Your task to perform on an android device: clear history in the chrome app Image 0: 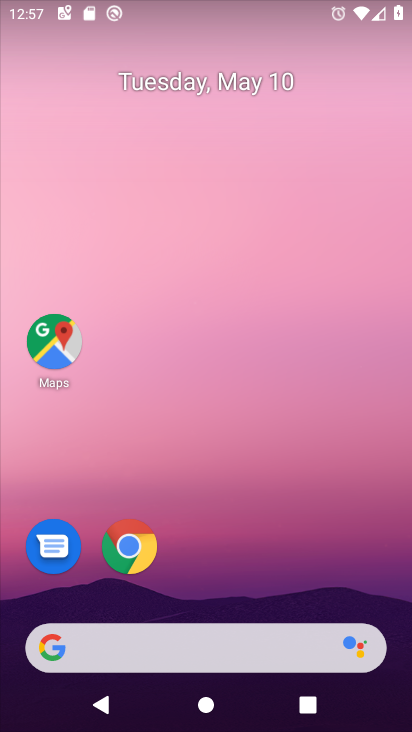
Step 0: click (138, 537)
Your task to perform on an android device: clear history in the chrome app Image 1: 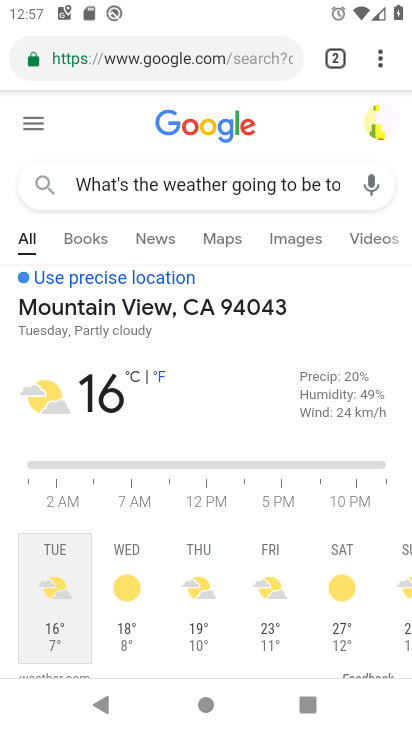
Step 1: drag from (378, 63) to (208, 585)
Your task to perform on an android device: clear history in the chrome app Image 2: 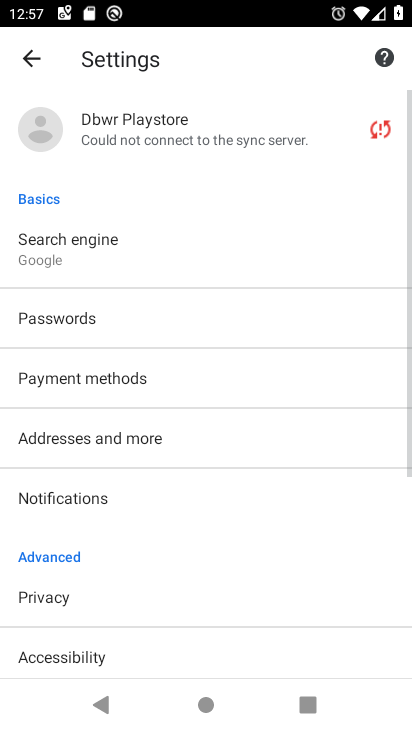
Step 2: drag from (149, 636) to (186, 181)
Your task to perform on an android device: clear history in the chrome app Image 3: 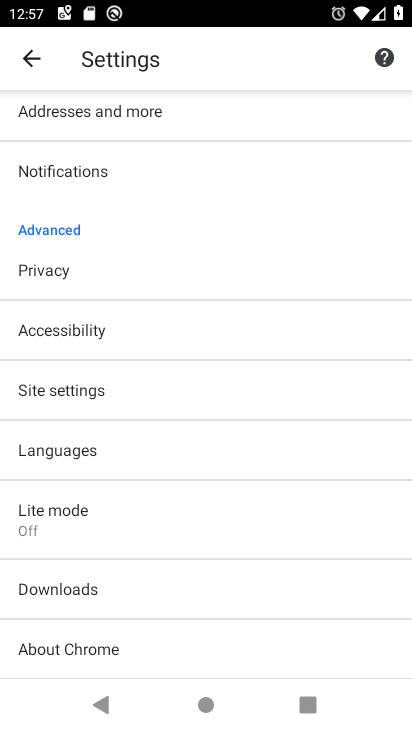
Step 3: click (48, 60)
Your task to perform on an android device: clear history in the chrome app Image 4: 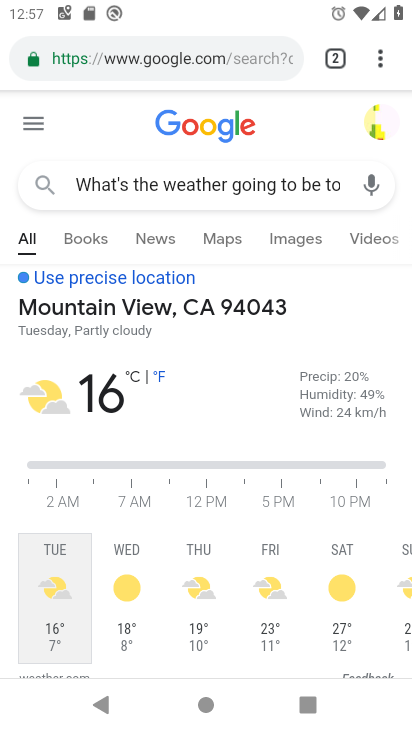
Step 4: drag from (368, 64) to (237, 320)
Your task to perform on an android device: clear history in the chrome app Image 5: 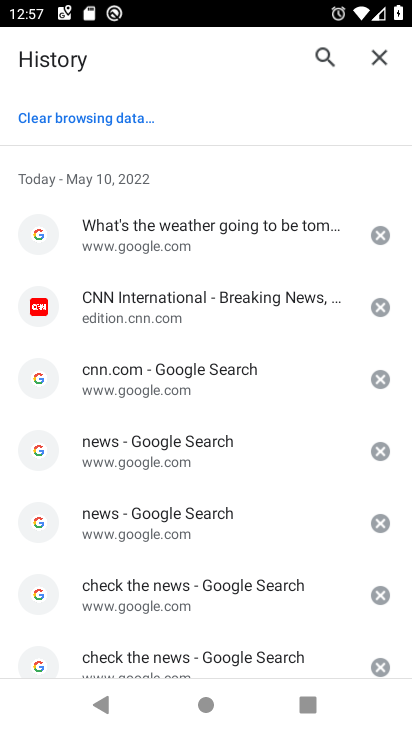
Step 5: click (91, 105)
Your task to perform on an android device: clear history in the chrome app Image 6: 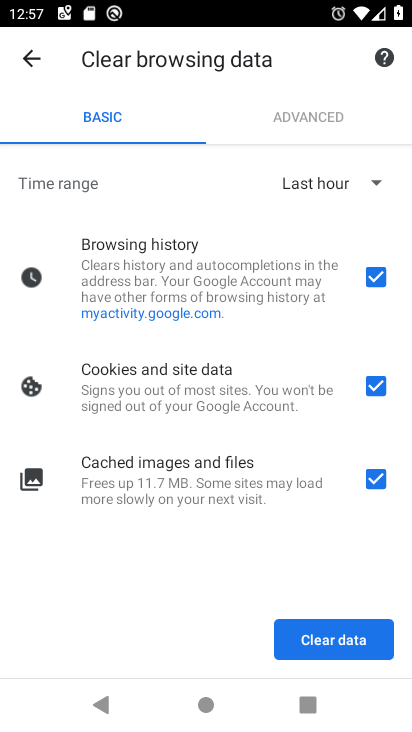
Step 6: click (289, 635)
Your task to perform on an android device: clear history in the chrome app Image 7: 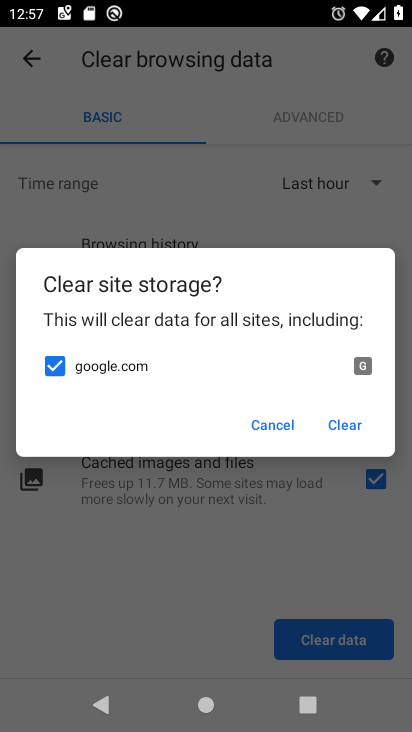
Step 7: click (341, 428)
Your task to perform on an android device: clear history in the chrome app Image 8: 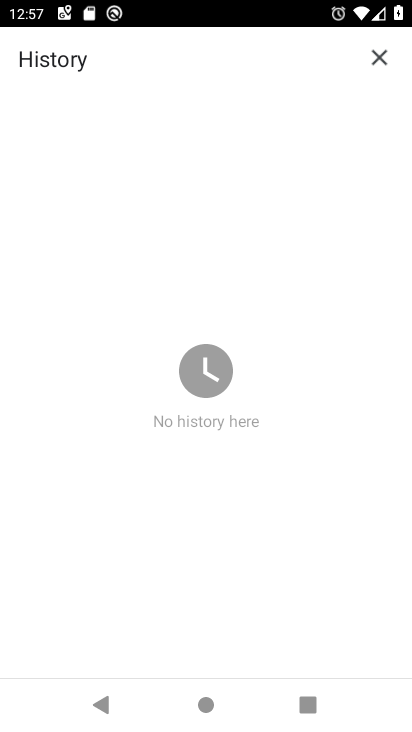
Step 8: task complete